Your task to perform on an android device: Turn on the flashlight Image 0: 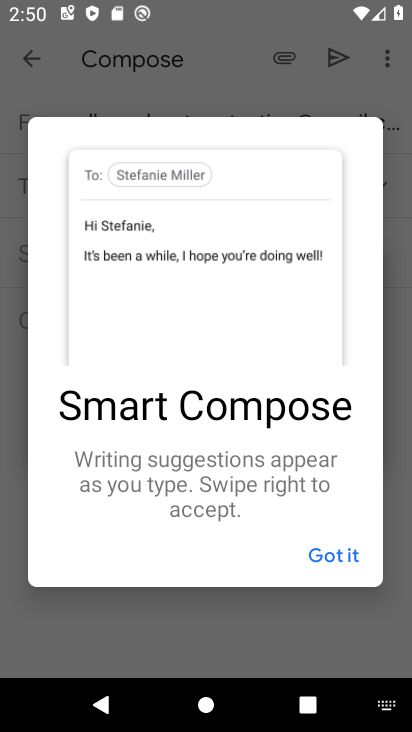
Step 0: press home button
Your task to perform on an android device: Turn on the flashlight Image 1: 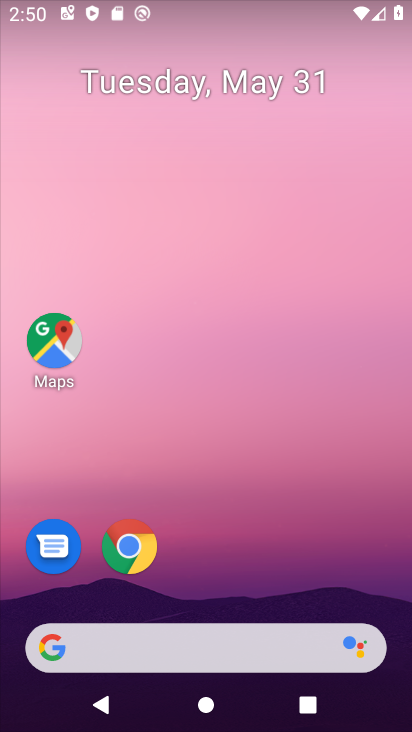
Step 1: drag from (262, 496) to (274, 33)
Your task to perform on an android device: Turn on the flashlight Image 2: 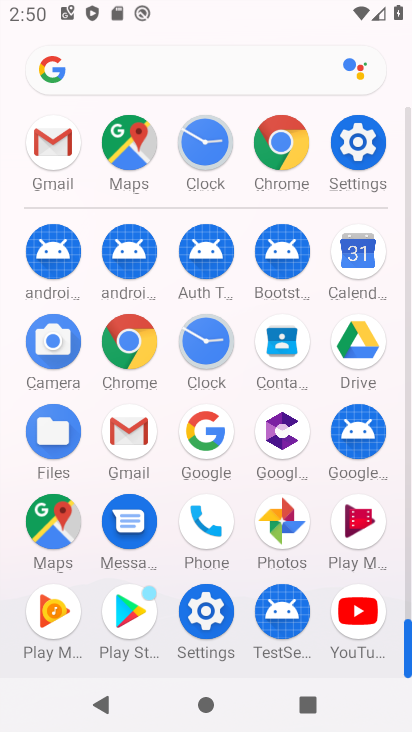
Step 2: click (360, 148)
Your task to perform on an android device: Turn on the flashlight Image 3: 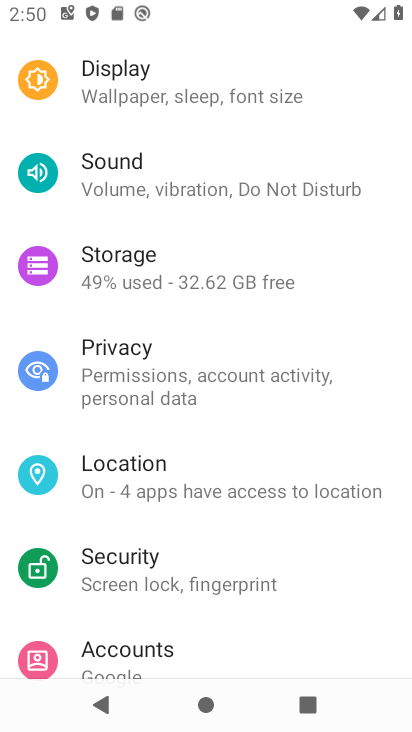
Step 3: drag from (260, 135) to (255, 474)
Your task to perform on an android device: Turn on the flashlight Image 4: 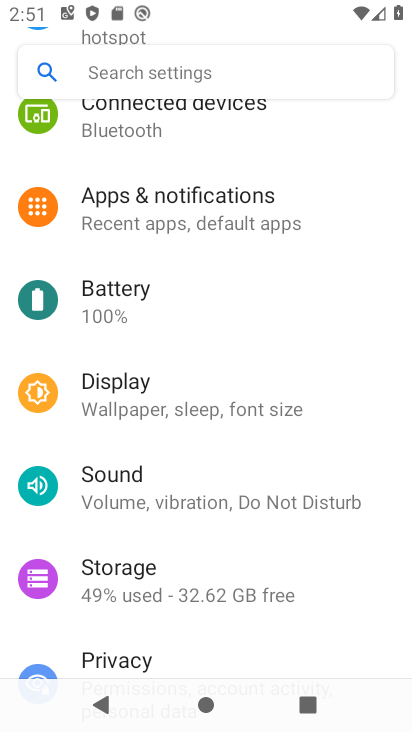
Step 4: drag from (245, 114) to (245, 536)
Your task to perform on an android device: Turn on the flashlight Image 5: 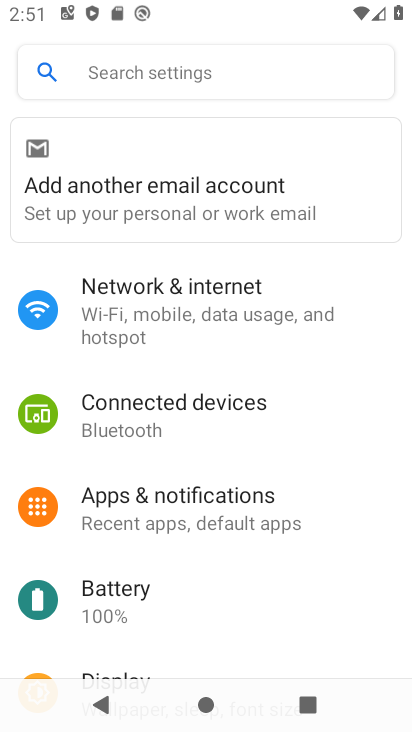
Step 5: click (280, 66)
Your task to perform on an android device: Turn on the flashlight Image 6: 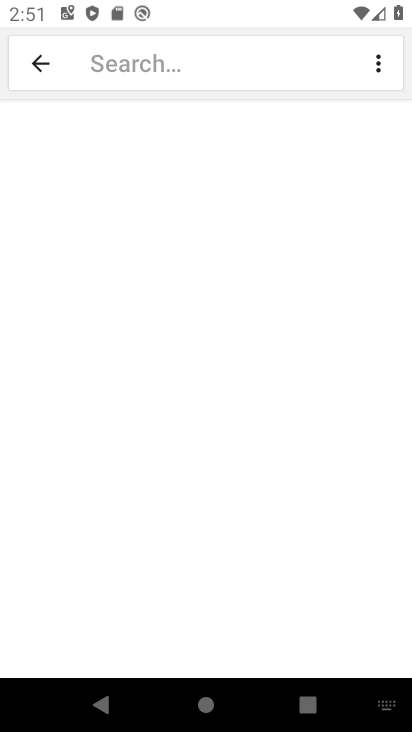
Step 6: type ""
Your task to perform on an android device: Turn on the flashlight Image 7: 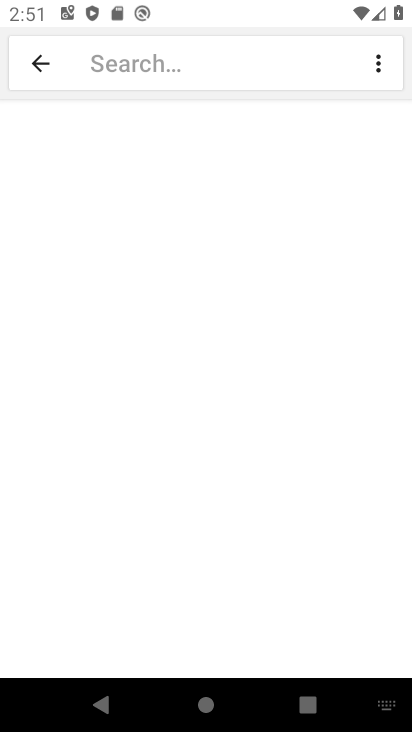
Step 7: type "Flashlight"
Your task to perform on an android device: Turn on the flashlight Image 8: 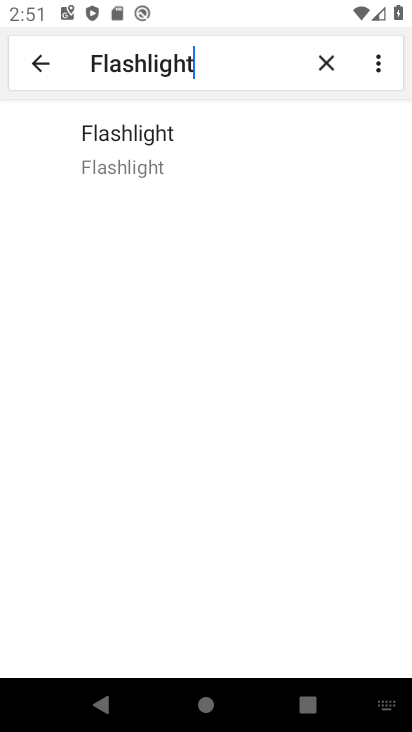
Step 8: click (150, 148)
Your task to perform on an android device: Turn on the flashlight Image 9: 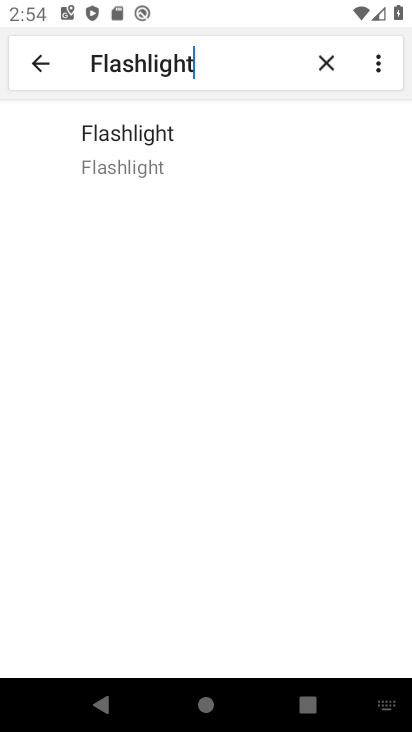
Step 9: task complete